Your task to perform on an android device: Clear the cart on ebay.com. Search for "bose soundlink" on ebay.com, select the first entry, add it to the cart, then select checkout. Image 0: 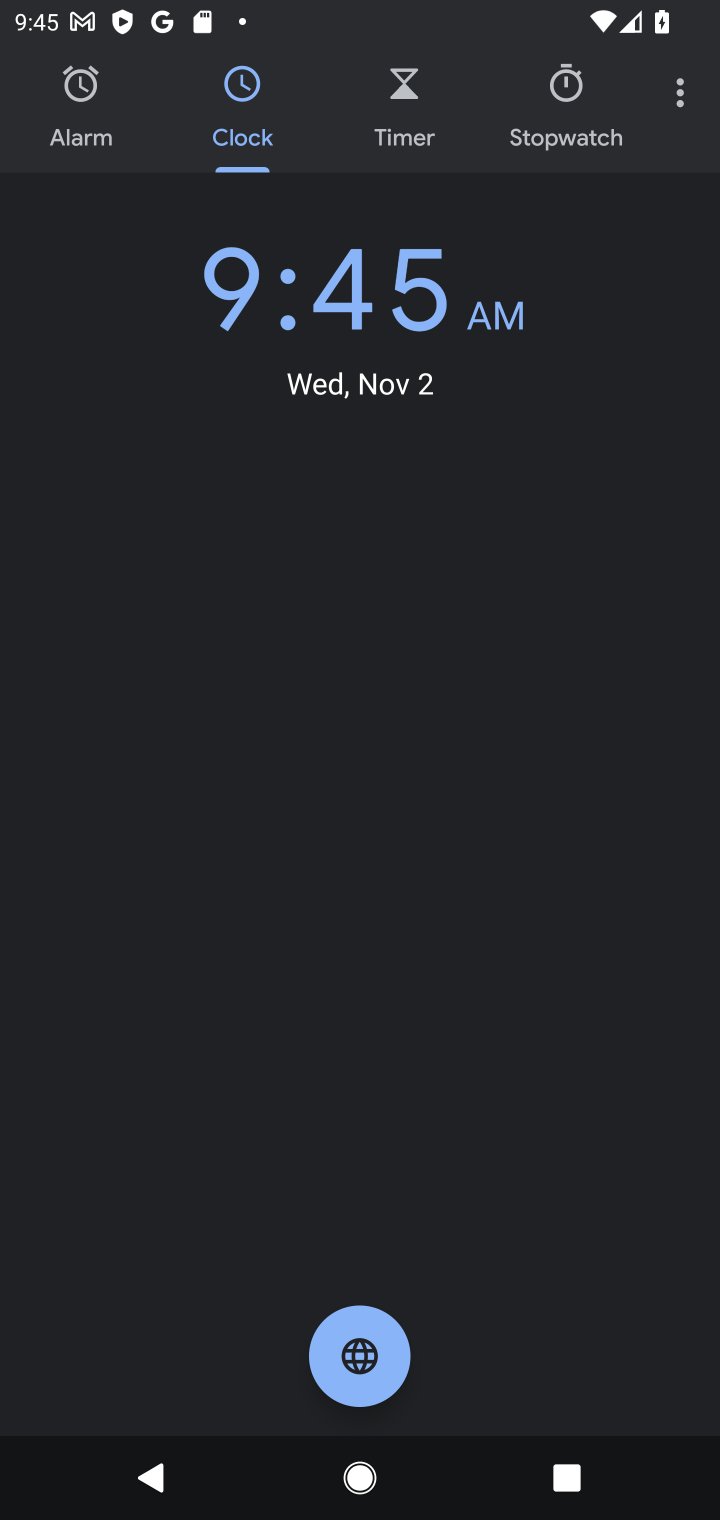
Step 0: press home button
Your task to perform on an android device: Clear the cart on ebay.com. Search for "bose soundlink" on ebay.com, select the first entry, add it to the cart, then select checkout. Image 1: 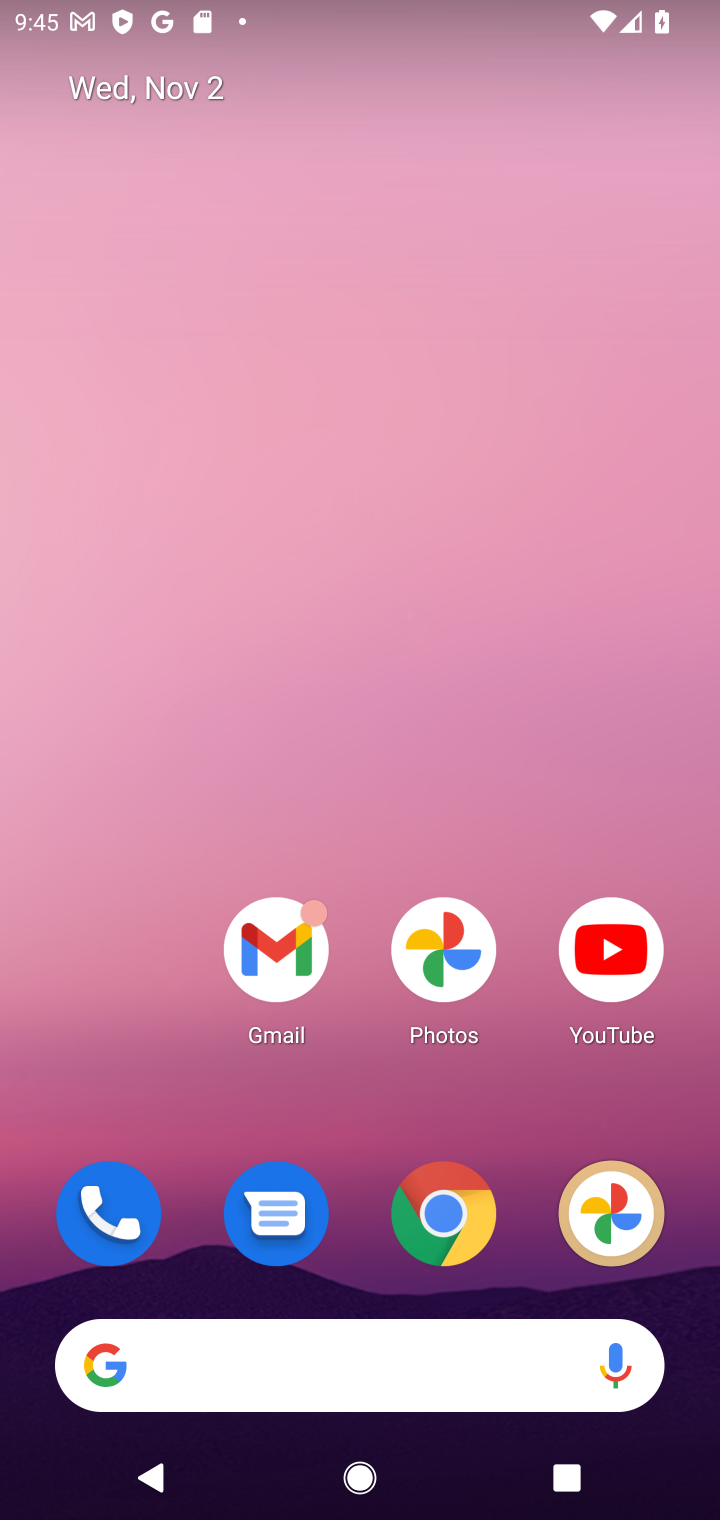
Step 1: click (431, 1227)
Your task to perform on an android device: Clear the cart on ebay.com. Search for "bose soundlink" on ebay.com, select the first entry, add it to the cart, then select checkout. Image 2: 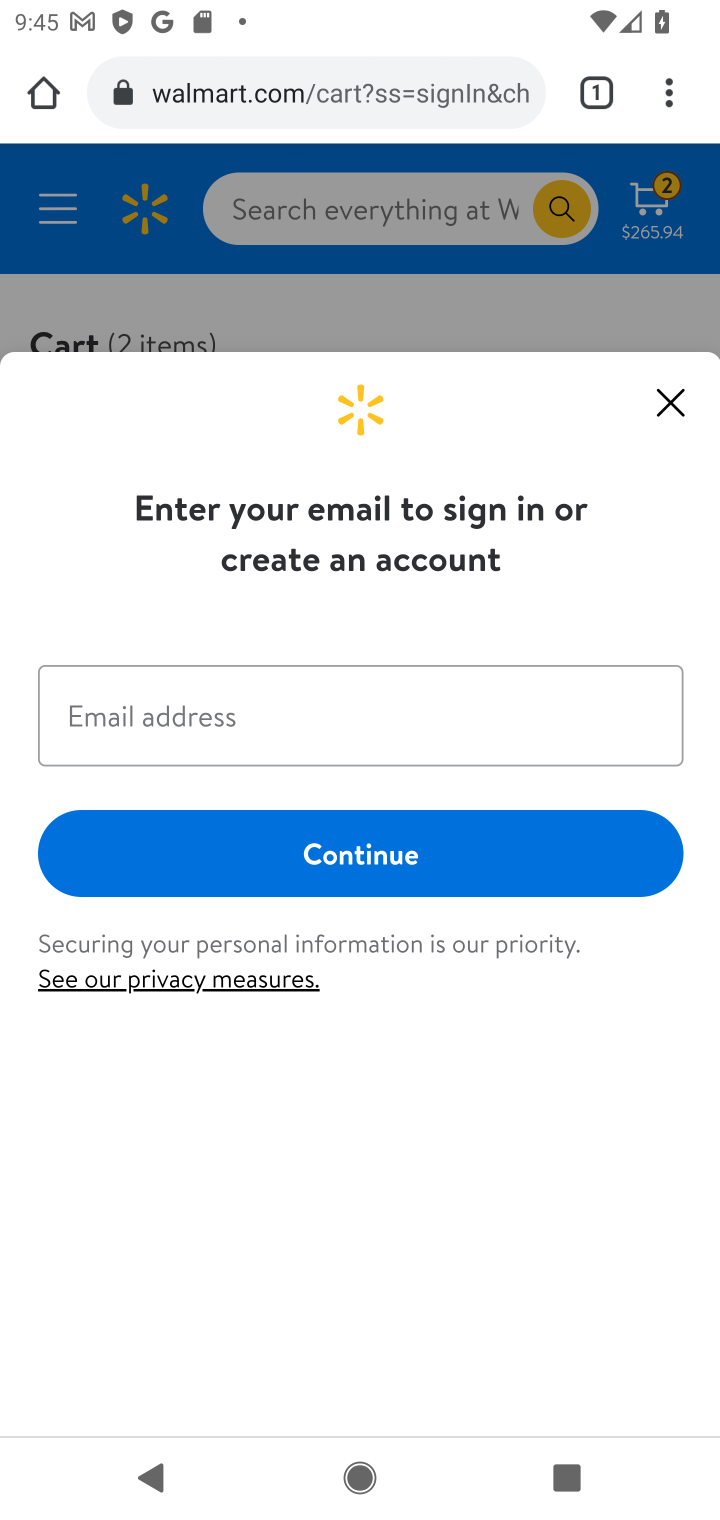
Step 2: click (297, 104)
Your task to perform on an android device: Clear the cart on ebay.com. Search for "bose soundlink" on ebay.com, select the first entry, add it to the cart, then select checkout. Image 3: 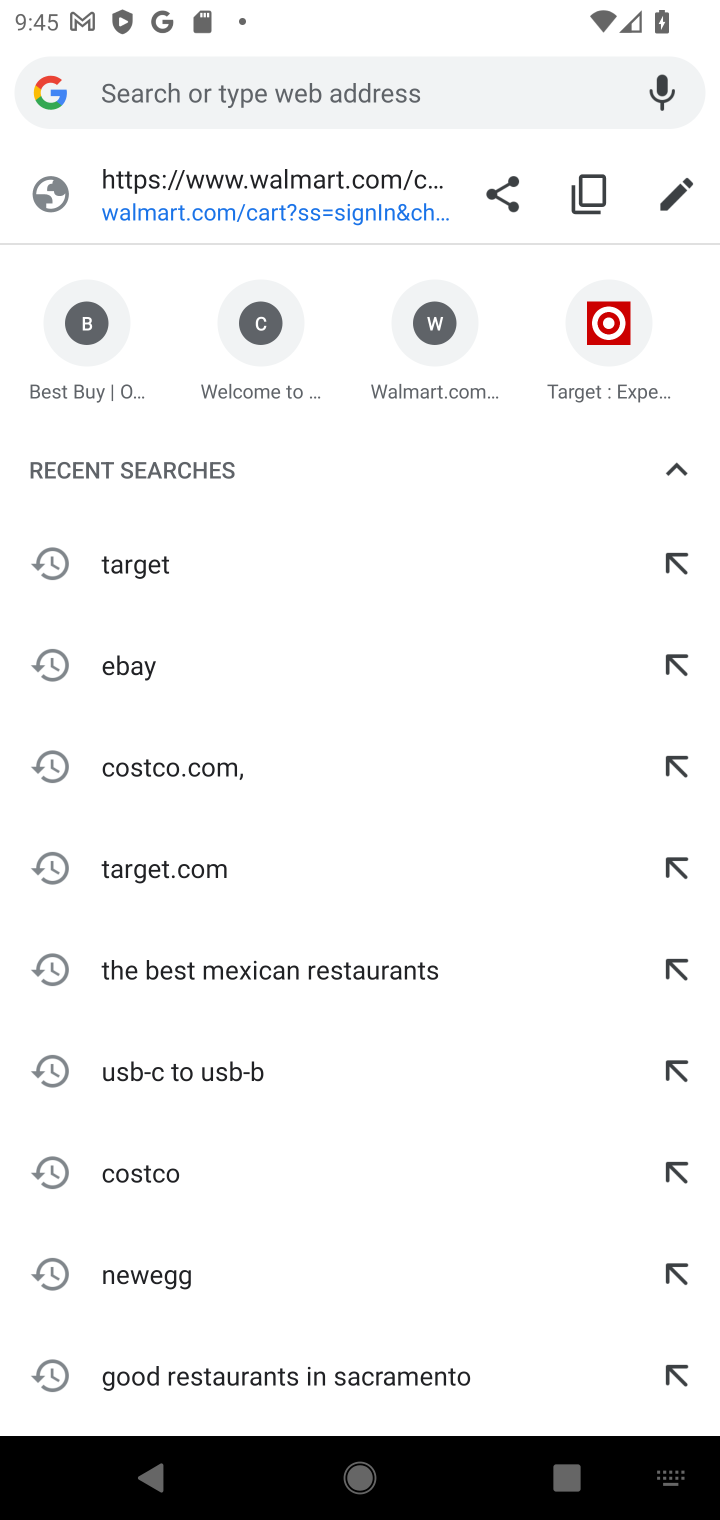
Step 3: type "ebay.com"
Your task to perform on an android device: Clear the cart on ebay.com. Search for "bose soundlink" on ebay.com, select the first entry, add it to the cart, then select checkout. Image 4: 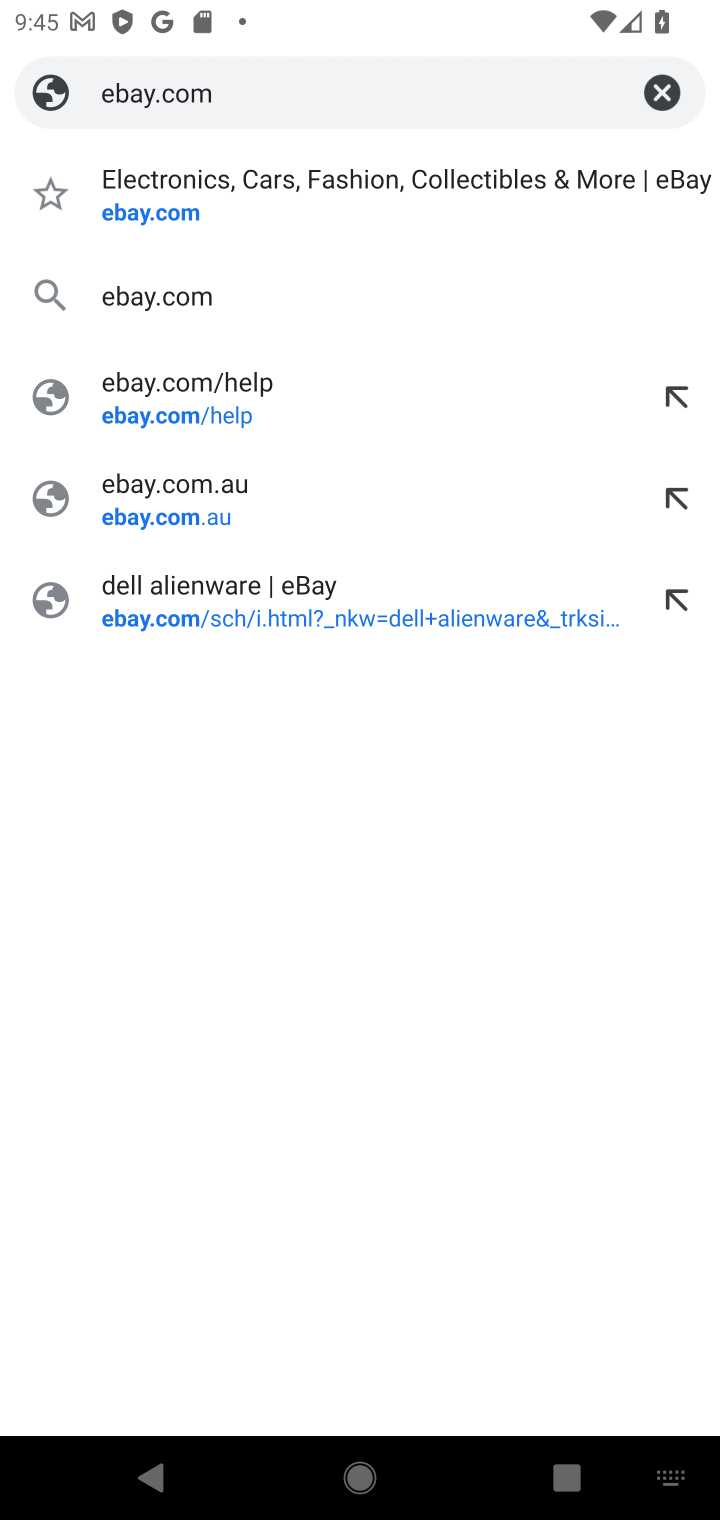
Step 4: click (263, 177)
Your task to perform on an android device: Clear the cart on ebay.com. Search for "bose soundlink" on ebay.com, select the first entry, add it to the cart, then select checkout. Image 5: 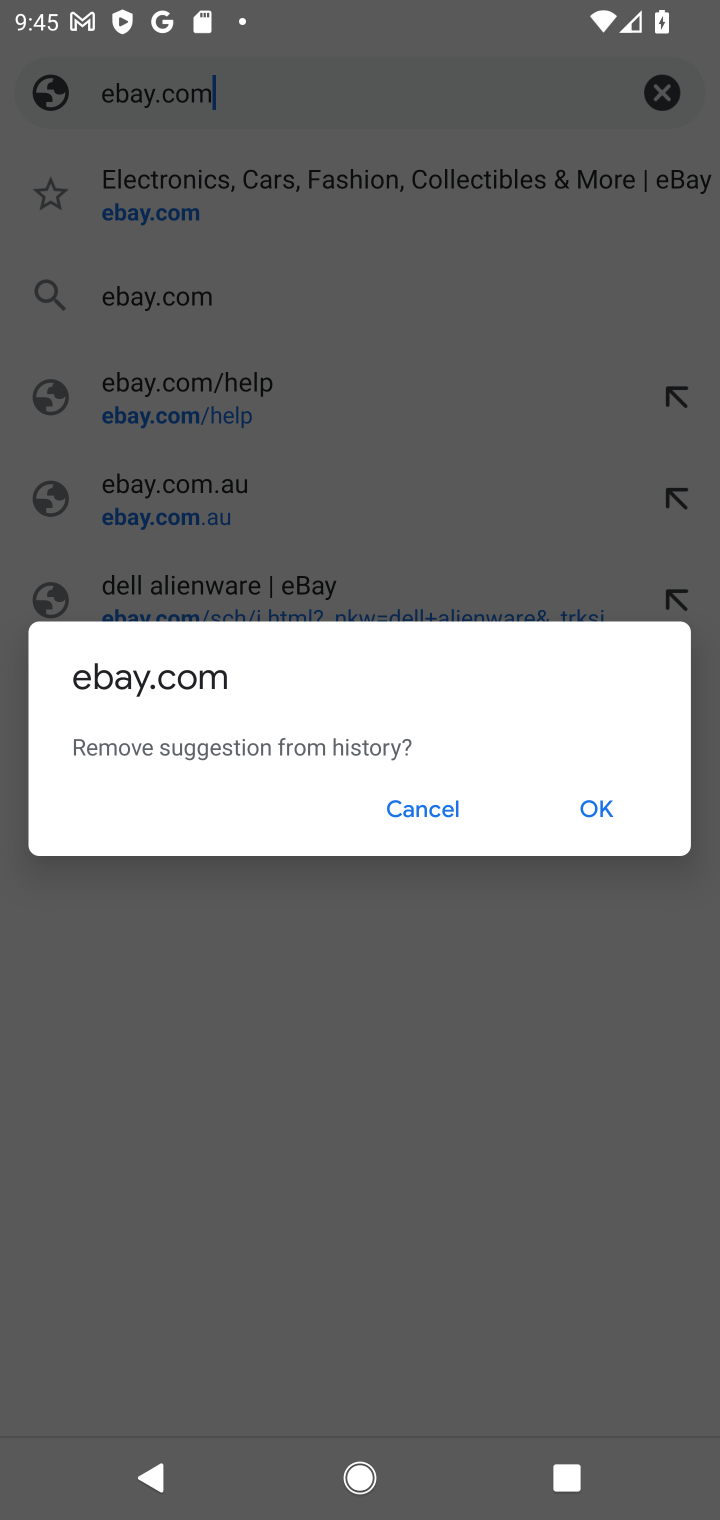
Step 5: click (598, 819)
Your task to perform on an android device: Clear the cart on ebay.com. Search for "bose soundlink" on ebay.com, select the first entry, add it to the cart, then select checkout. Image 6: 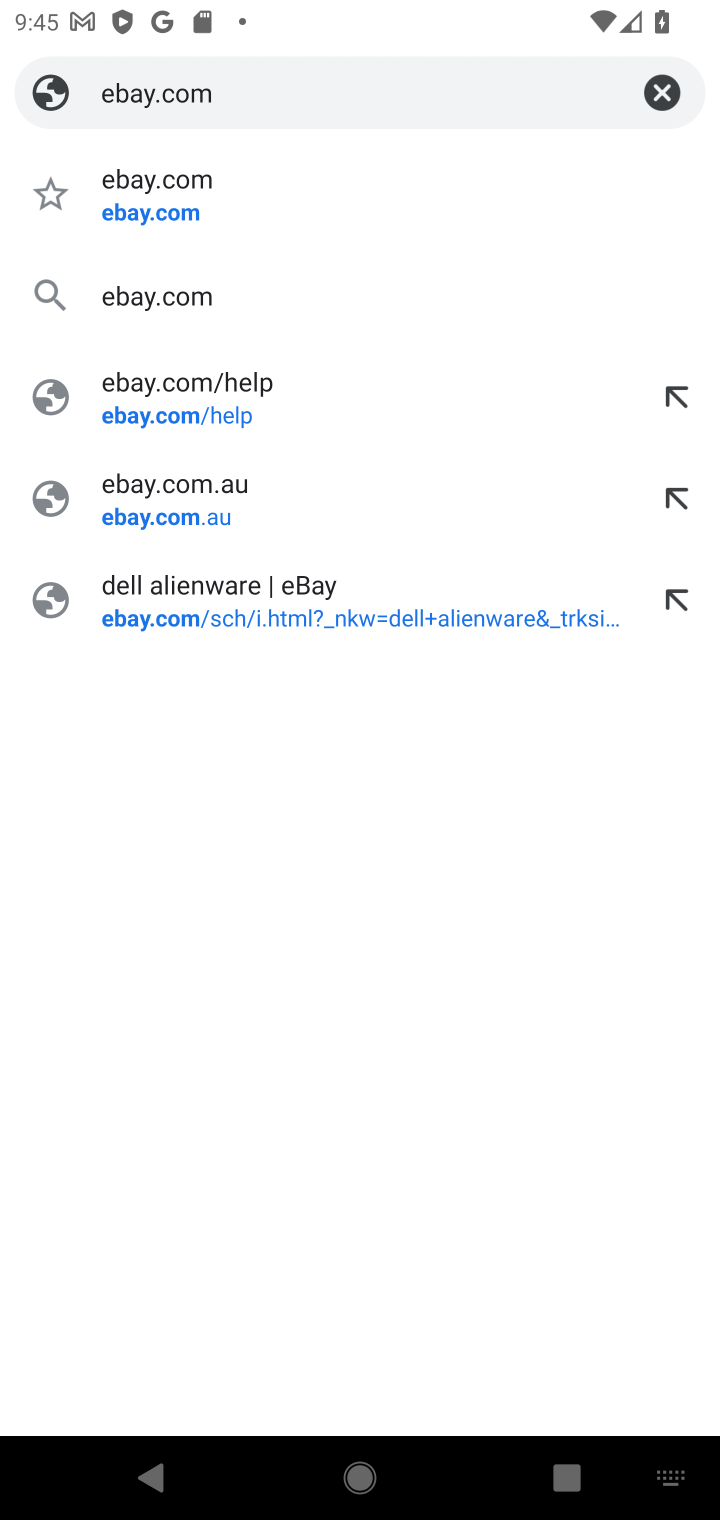
Step 6: click (162, 184)
Your task to perform on an android device: Clear the cart on ebay.com. Search for "bose soundlink" on ebay.com, select the first entry, add it to the cart, then select checkout. Image 7: 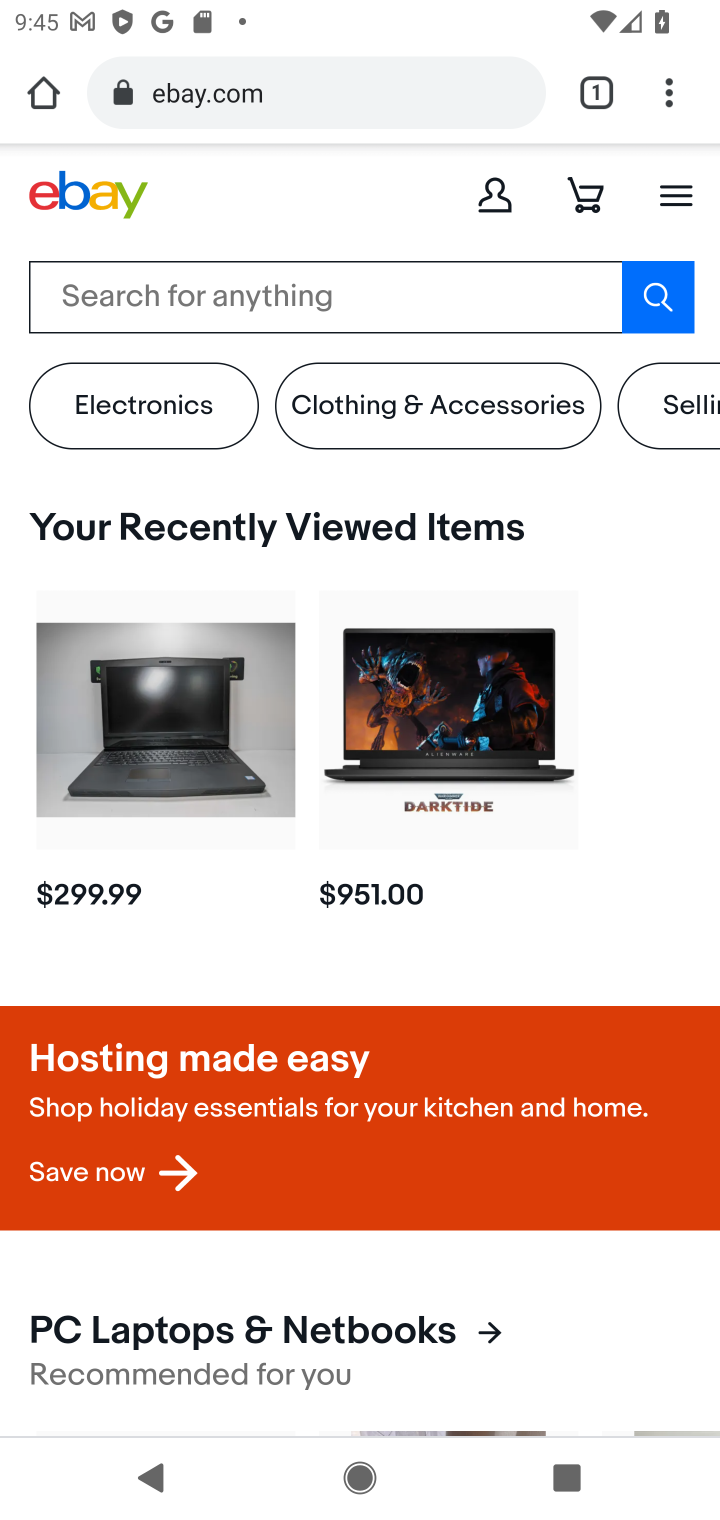
Step 7: click (164, 289)
Your task to perform on an android device: Clear the cart on ebay.com. Search for "bose soundlink" on ebay.com, select the first entry, add it to the cart, then select checkout. Image 8: 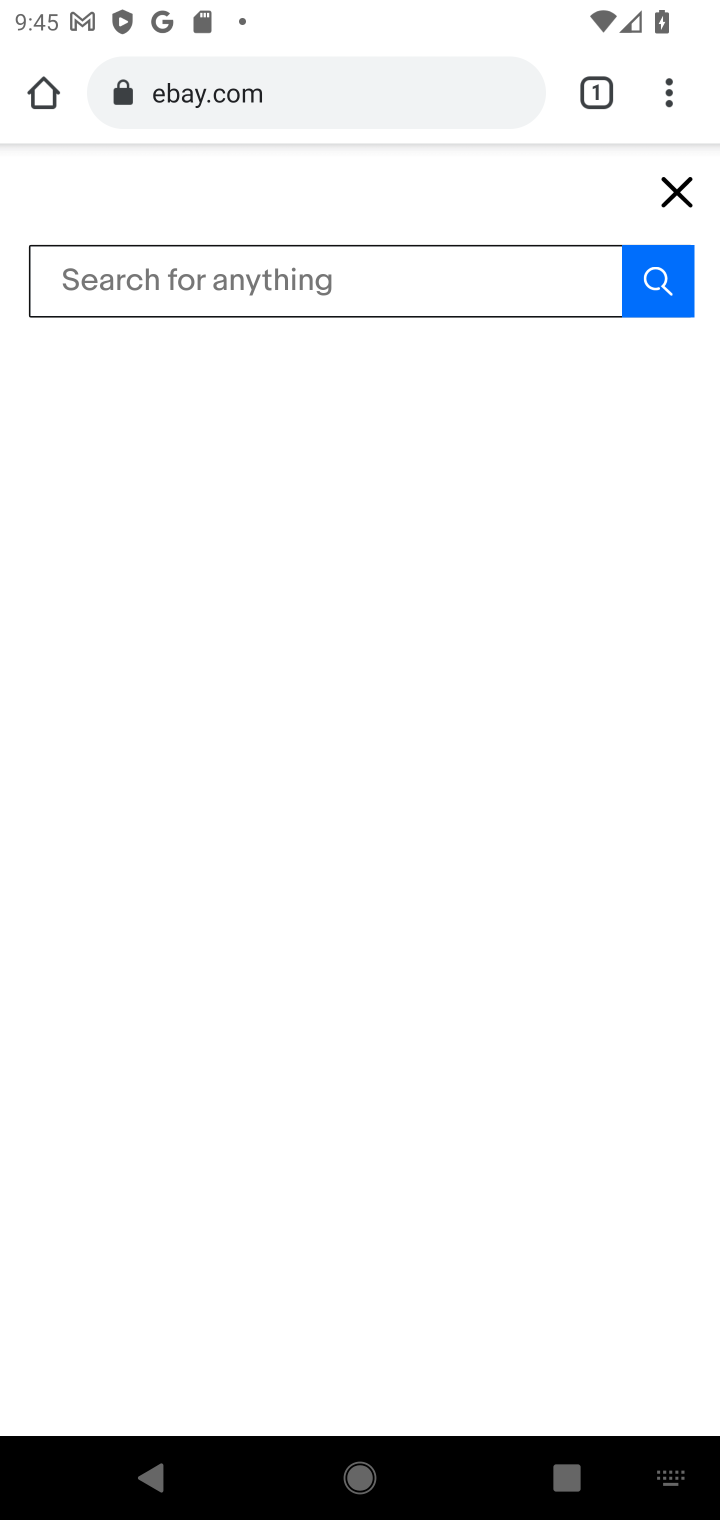
Step 8: click (142, 254)
Your task to perform on an android device: Clear the cart on ebay.com. Search for "bose soundlink" on ebay.com, select the first entry, add it to the cart, then select checkout. Image 9: 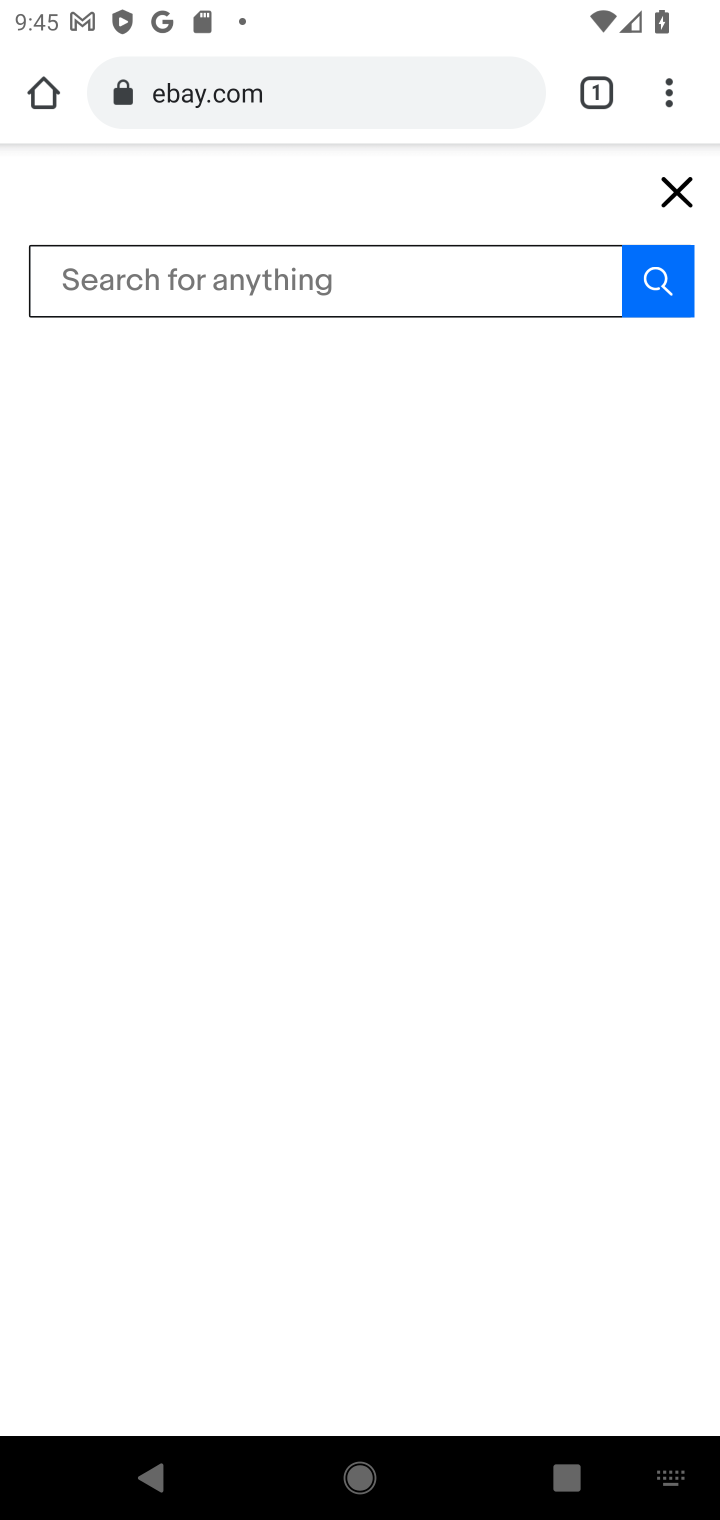
Step 9: type "bose soundlink"
Your task to perform on an android device: Clear the cart on ebay.com. Search for "bose soundlink" on ebay.com, select the first entry, add it to the cart, then select checkout. Image 10: 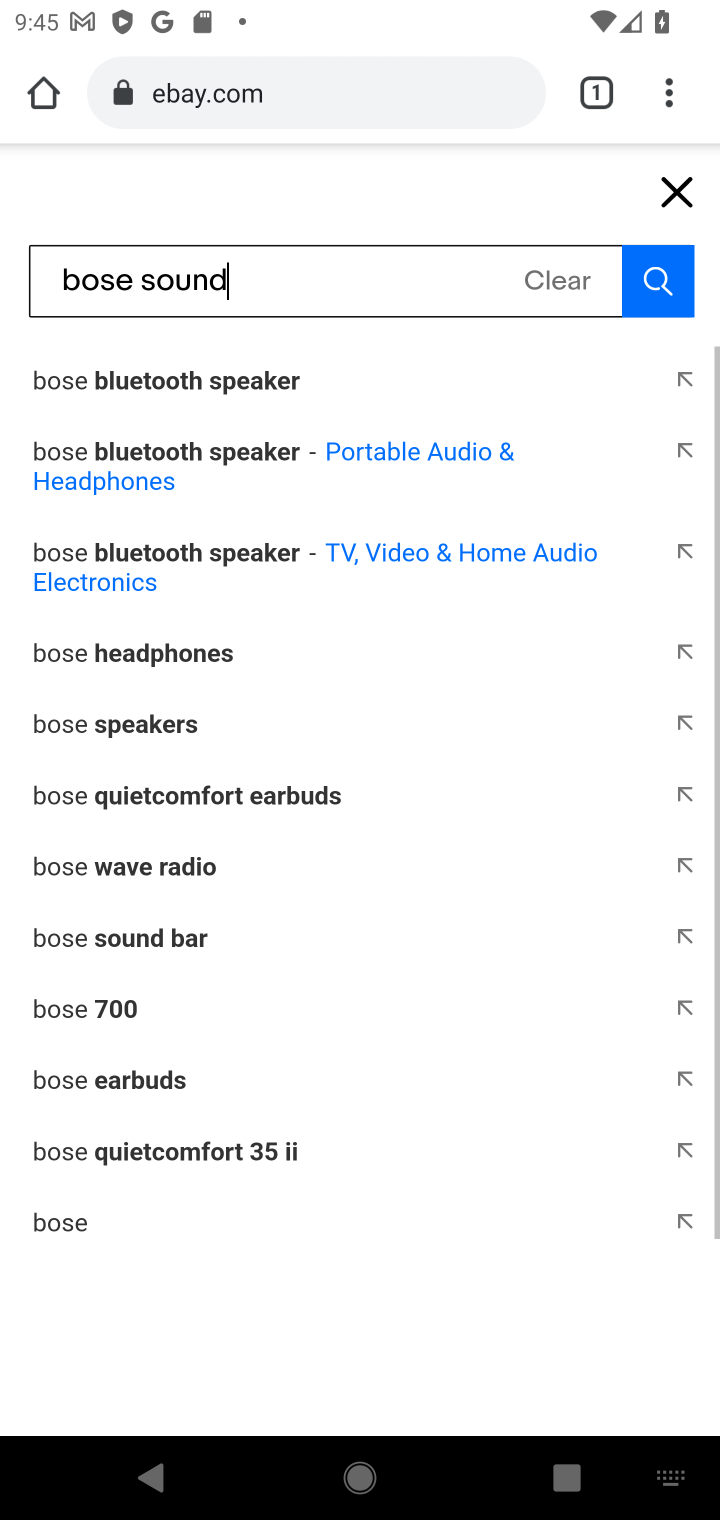
Step 10: type ""
Your task to perform on an android device: Clear the cart on ebay.com. Search for "bose soundlink" on ebay.com, select the first entry, add it to the cart, then select checkout. Image 11: 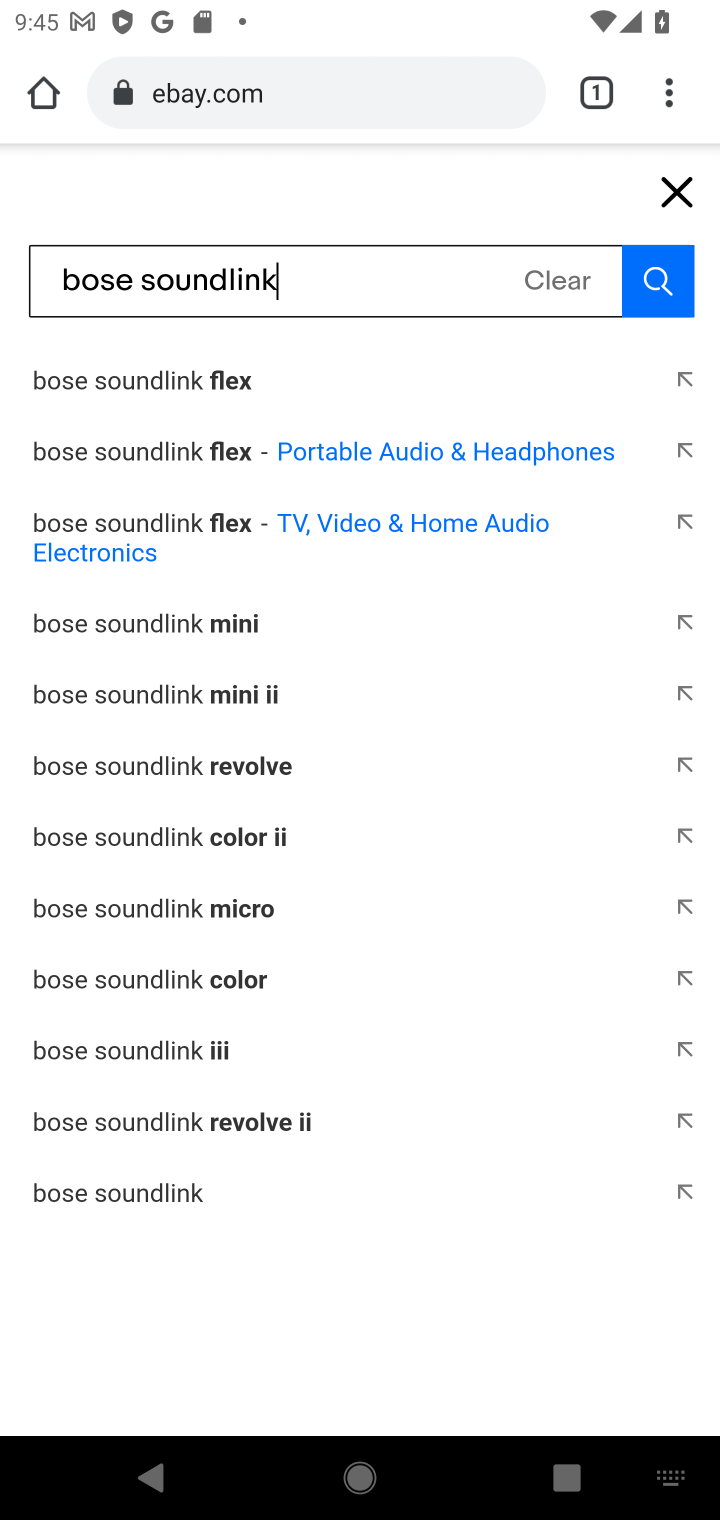
Step 11: click (668, 262)
Your task to perform on an android device: Clear the cart on ebay.com. Search for "bose soundlink" on ebay.com, select the first entry, add it to the cart, then select checkout. Image 12: 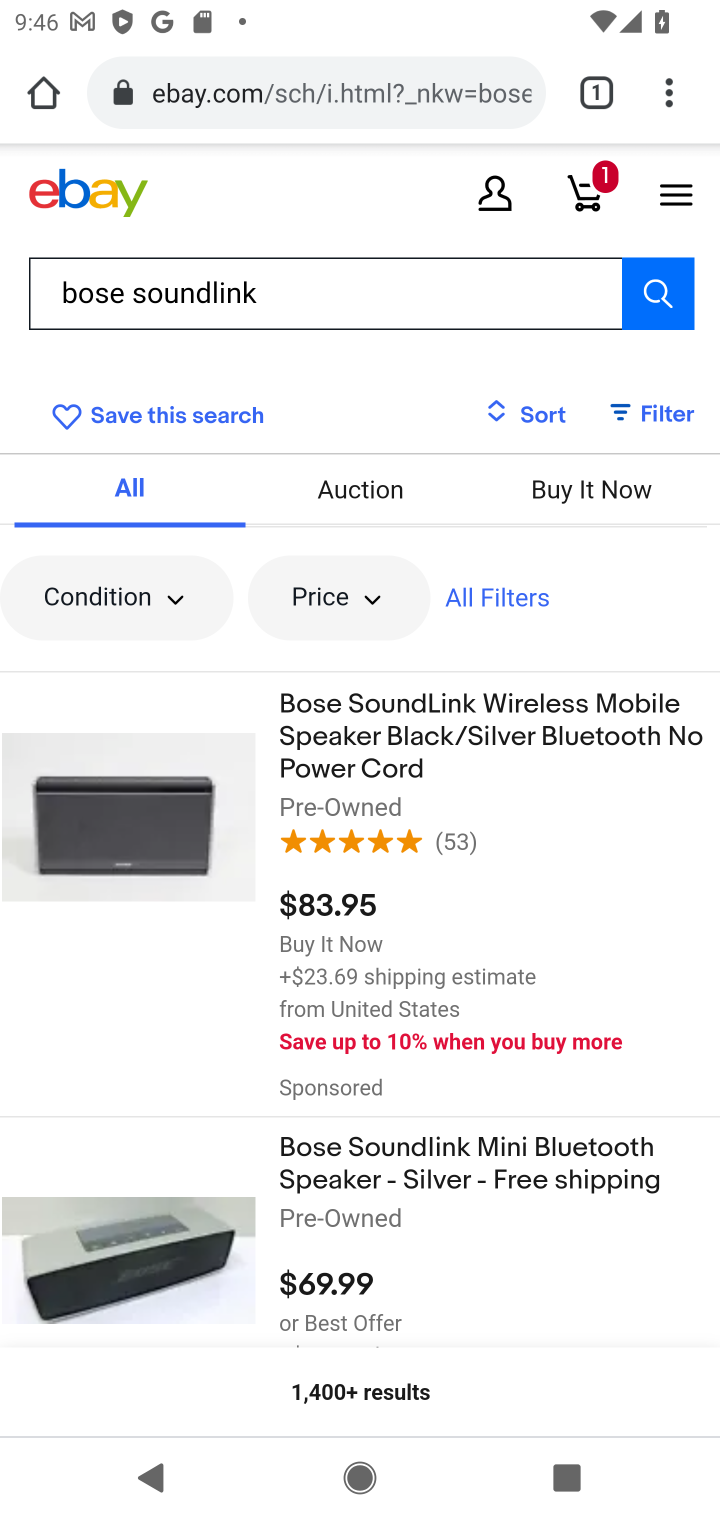
Step 12: click (588, 744)
Your task to perform on an android device: Clear the cart on ebay.com. Search for "bose soundlink" on ebay.com, select the first entry, add it to the cart, then select checkout. Image 13: 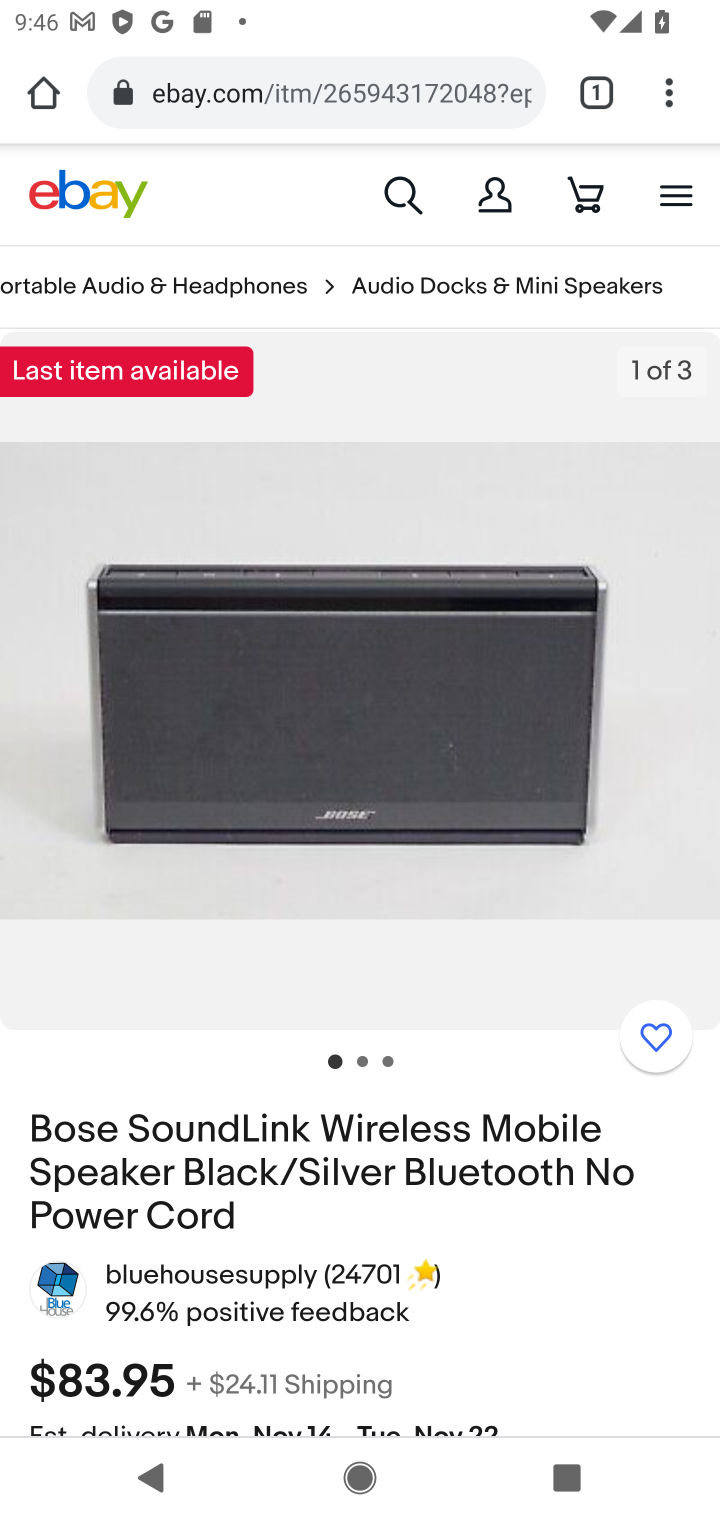
Step 13: drag from (544, 1044) to (556, 588)
Your task to perform on an android device: Clear the cart on ebay.com. Search for "bose soundlink" on ebay.com, select the first entry, add it to the cart, then select checkout. Image 14: 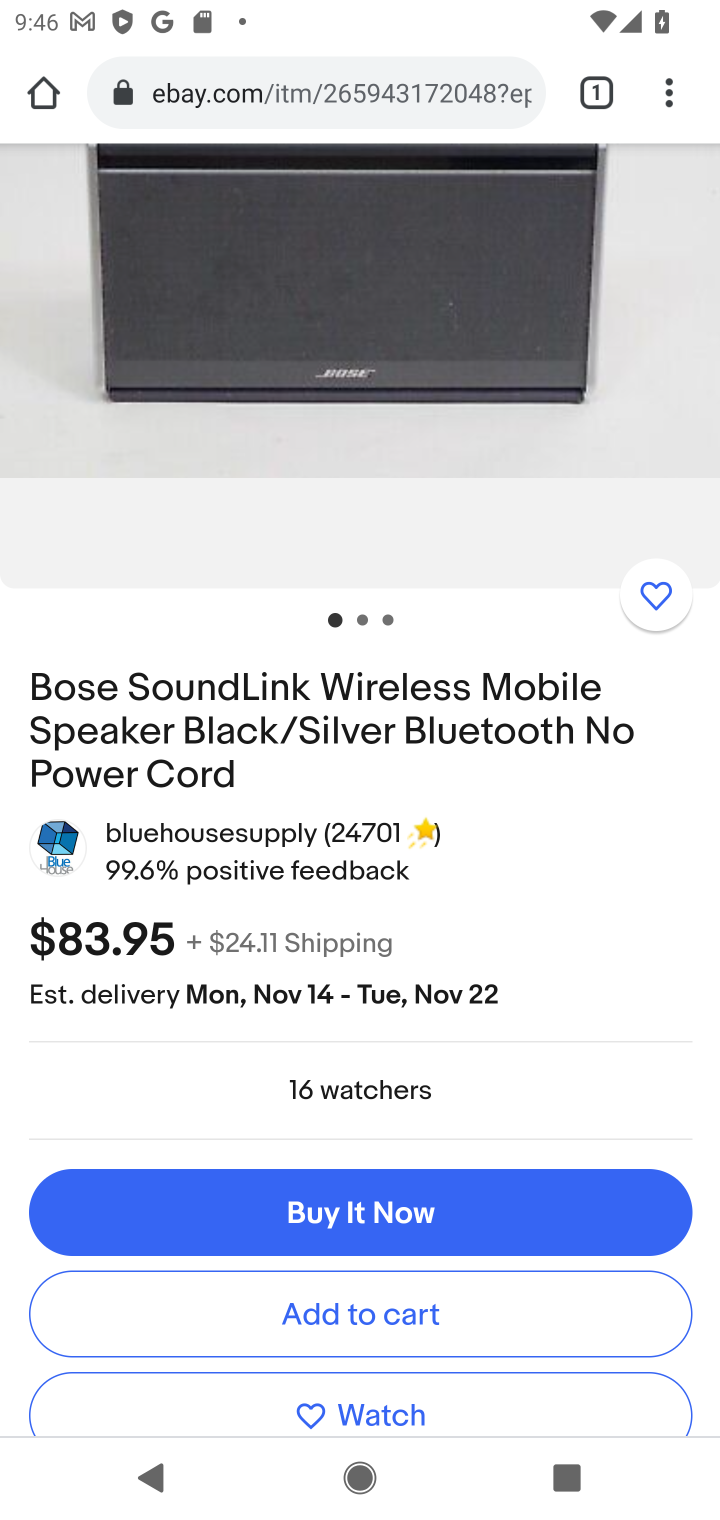
Step 14: click (379, 1279)
Your task to perform on an android device: Clear the cart on ebay.com. Search for "bose soundlink" on ebay.com, select the first entry, add it to the cart, then select checkout. Image 15: 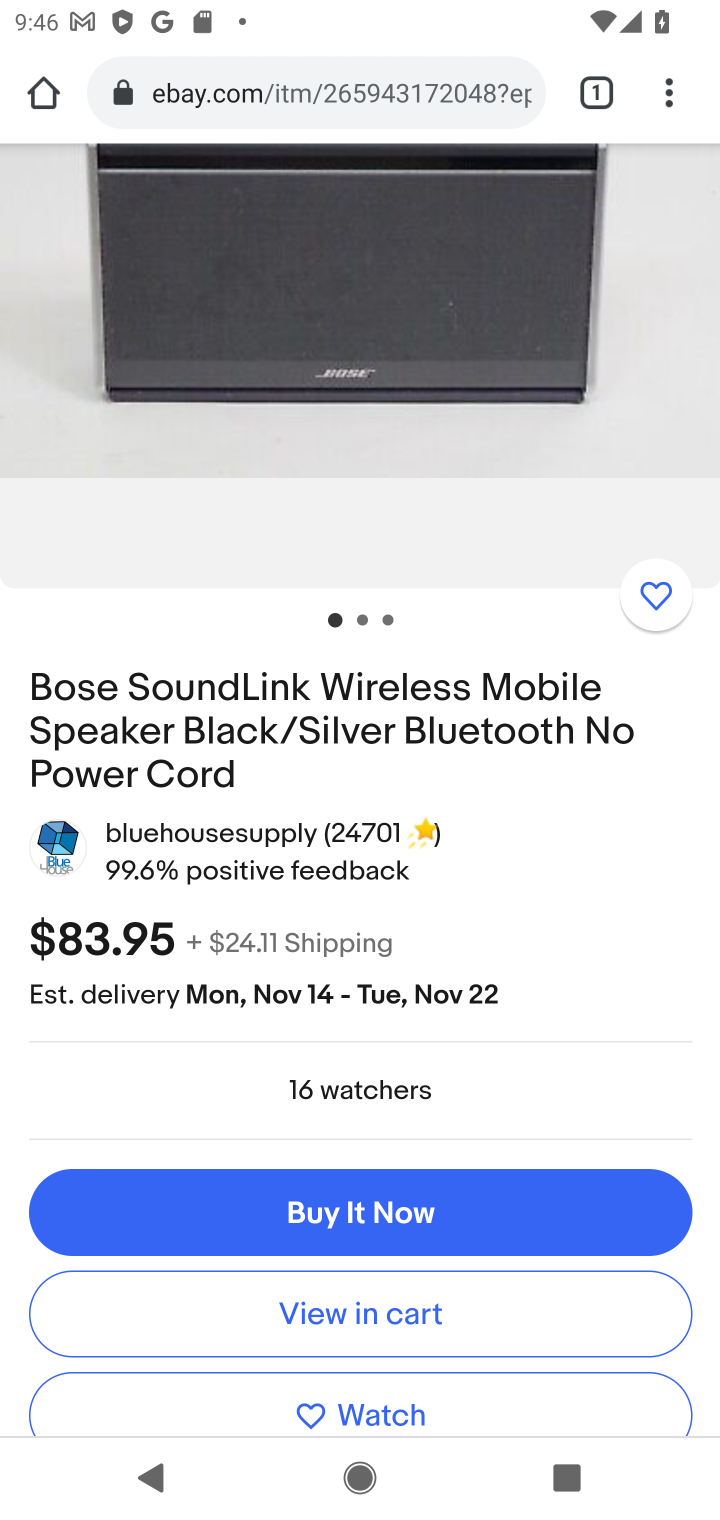
Step 15: click (379, 1302)
Your task to perform on an android device: Clear the cart on ebay.com. Search for "bose soundlink" on ebay.com, select the first entry, add it to the cart, then select checkout. Image 16: 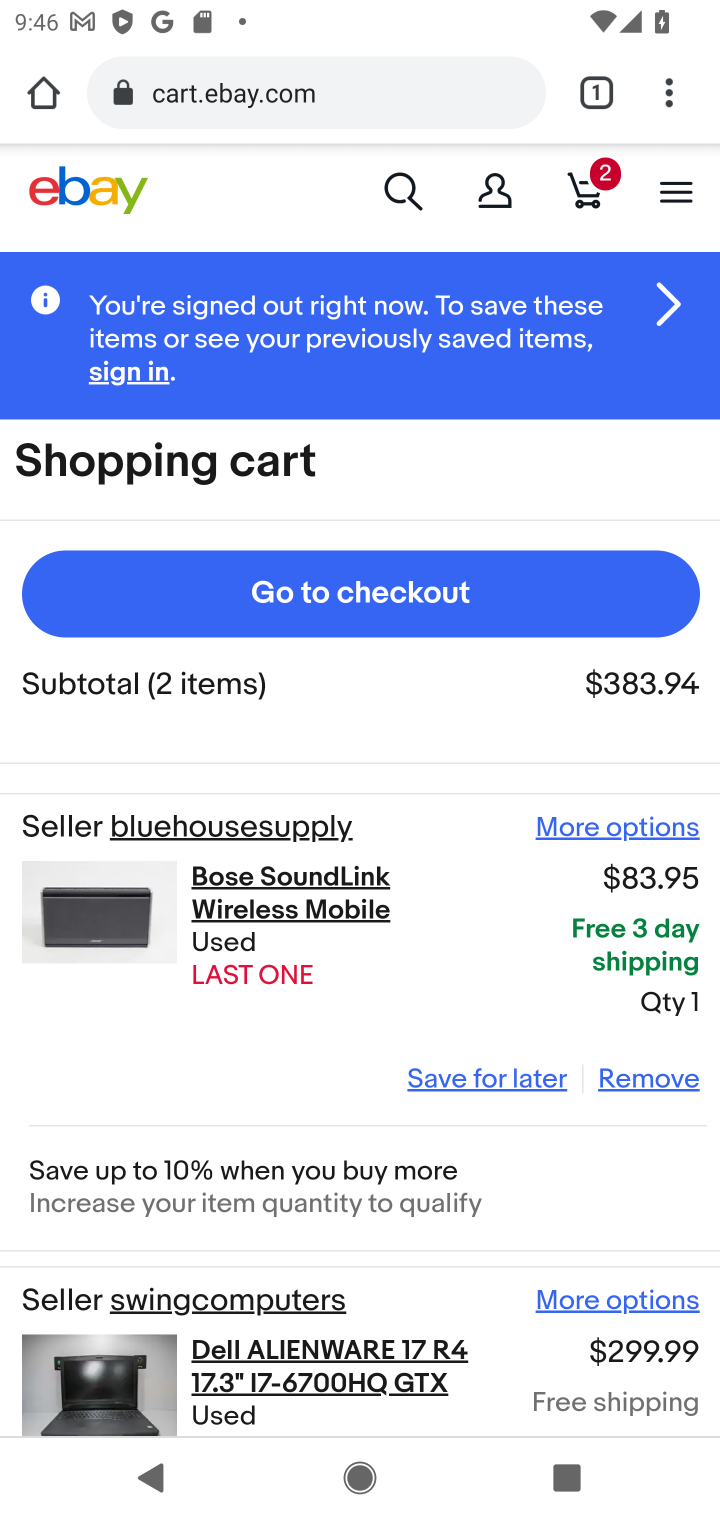
Step 16: drag from (412, 1173) to (426, 627)
Your task to perform on an android device: Clear the cart on ebay.com. Search for "bose soundlink" on ebay.com, select the first entry, add it to the cart, then select checkout. Image 17: 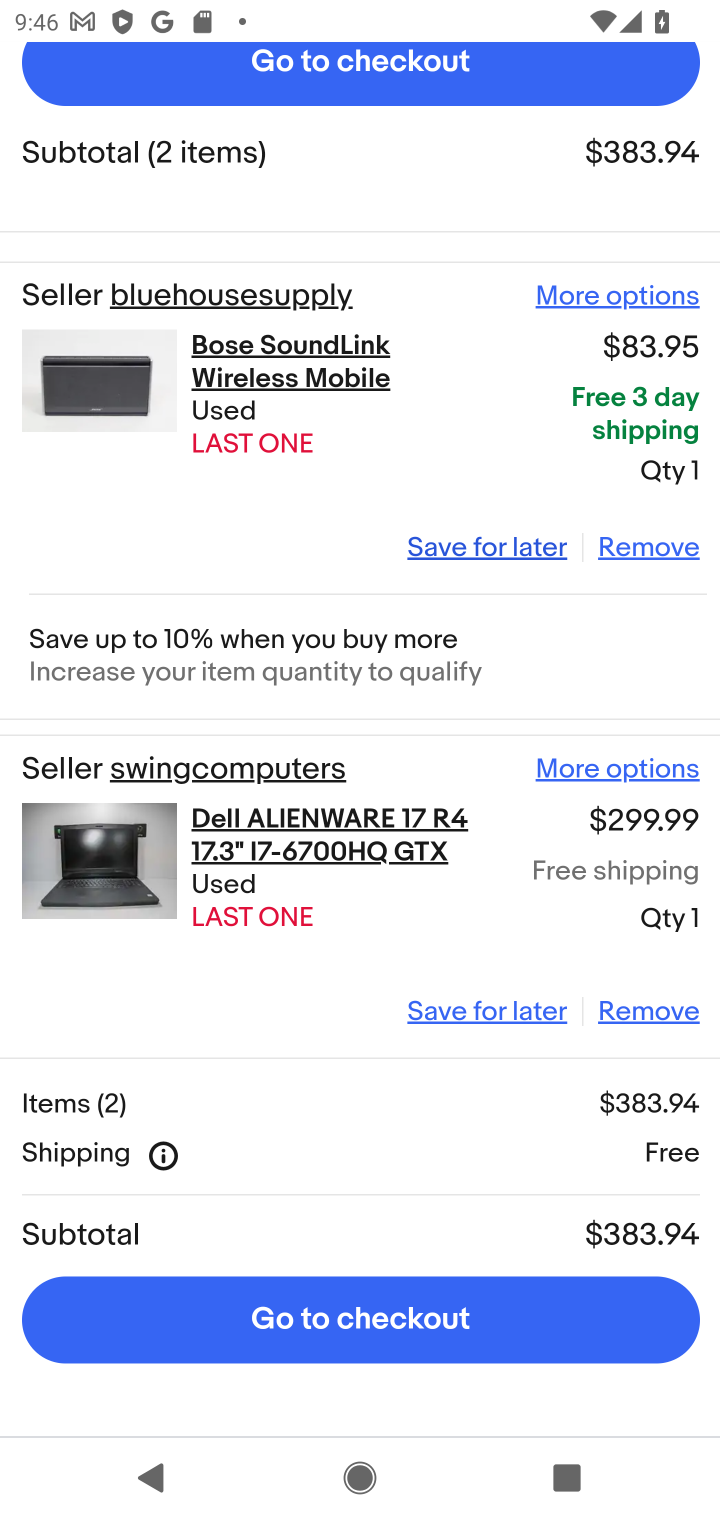
Step 17: click (637, 1009)
Your task to perform on an android device: Clear the cart on ebay.com. Search for "bose soundlink" on ebay.com, select the first entry, add it to the cart, then select checkout. Image 18: 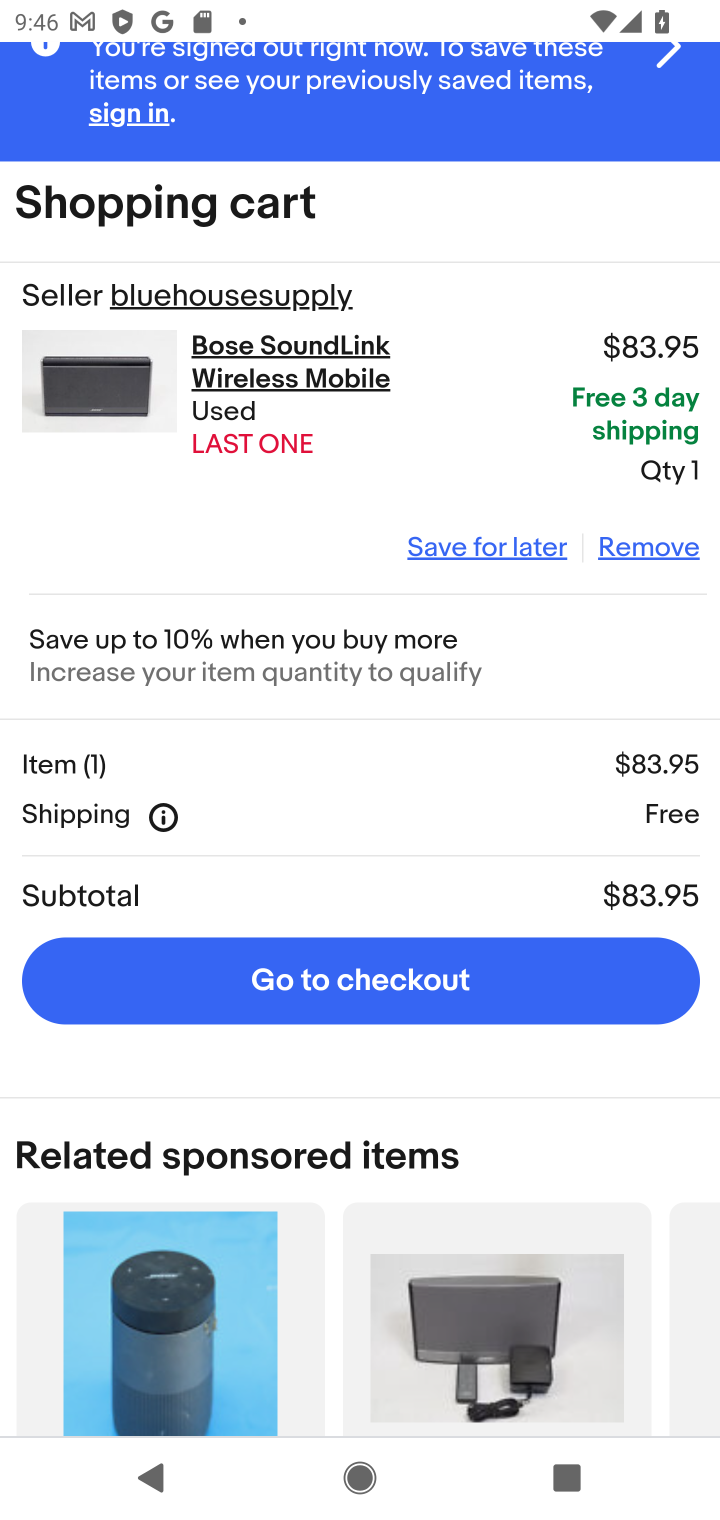
Step 18: click (612, 1002)
Your task to perform on an android device: Clear the cart on ebay.com. Search for "bose soundlink" on ebay.com, select the first entry, add it to the cart, then select checkout. Image 19: 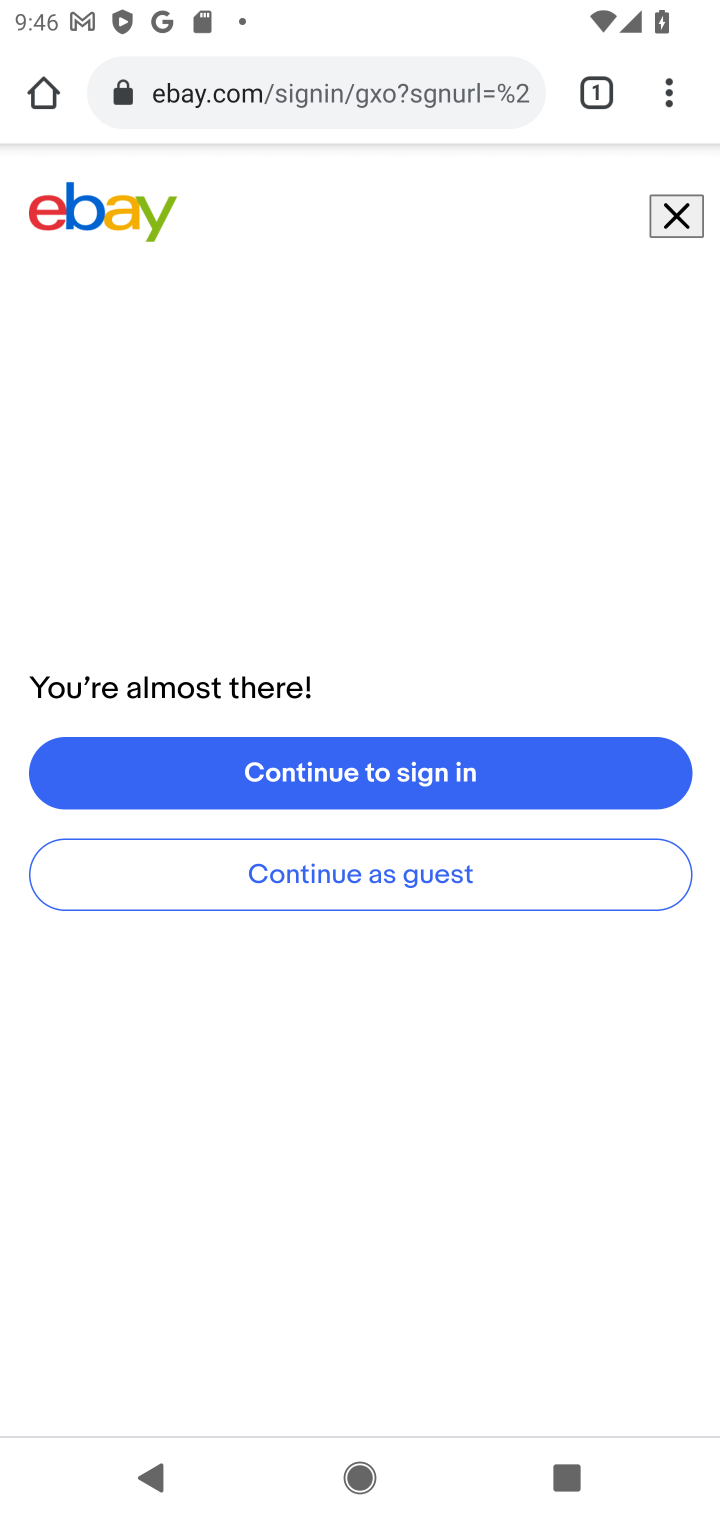
Step 19: task complete